Your task to perform on an android device: toggle location history Image 0: 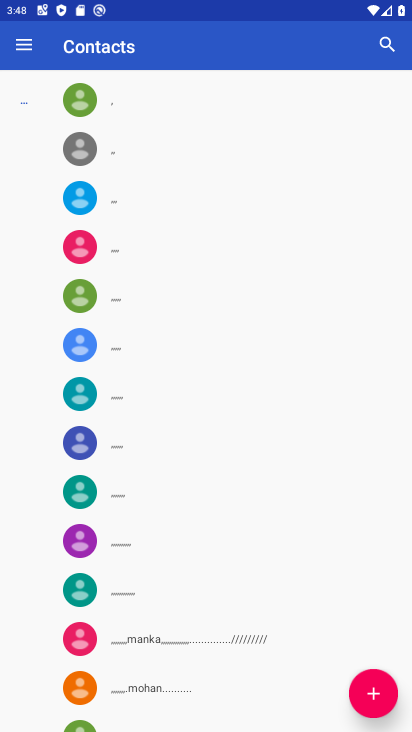
Step 0: press back button
Your task to perform on an android device: toggle location history Image 1: 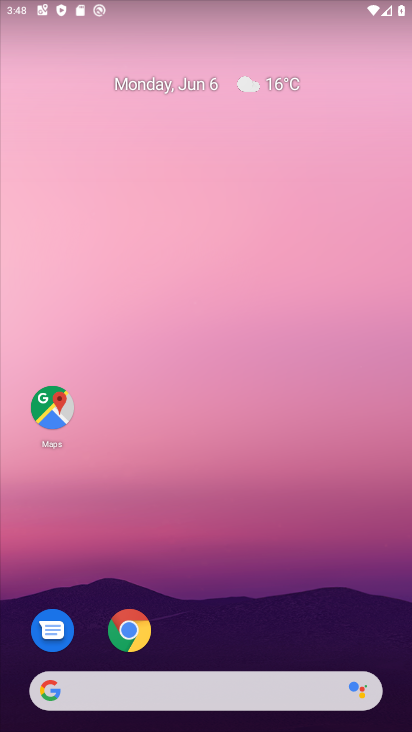
Step 1: drag from (198, 602) to (257, 144)
Your task to perform on an android device: toggle location history Image 2: 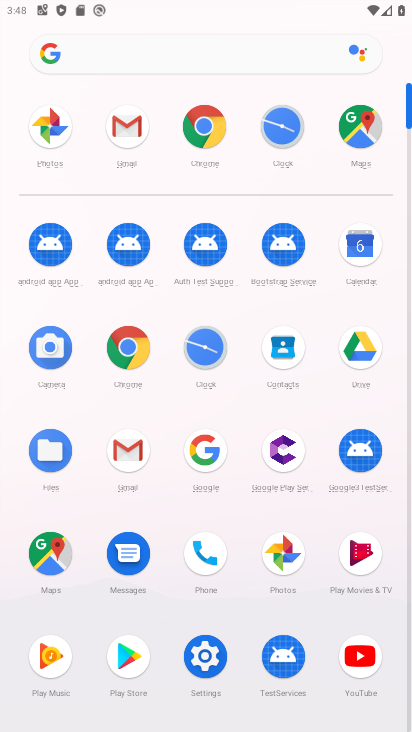
Step 2: click (211, 659)
Your task to perform on an android device: toggle location history Image 3: 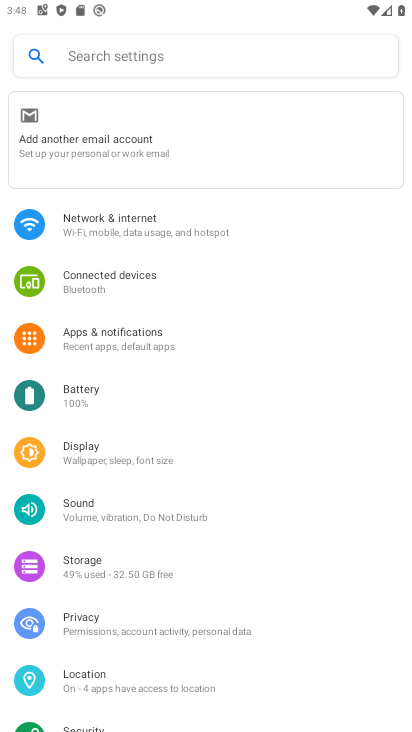
Step 3: click (124, 681)
Your task to perform on an android device: toggle location history Image 4: 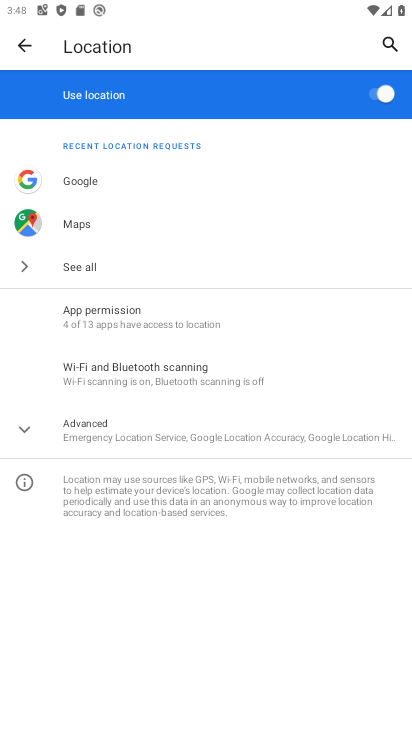
Step 4: click (168, 430)
Your task to perform on an android device: toggle location history Image 5: 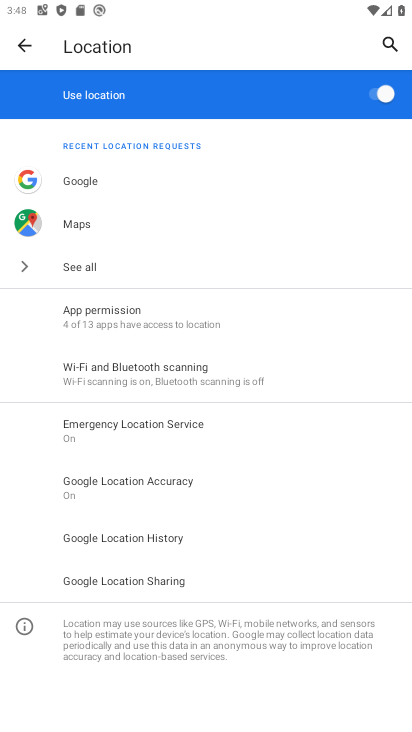
Step 5: click (129, 533)
Your task to perform on an android device: toggle location history Image 6: 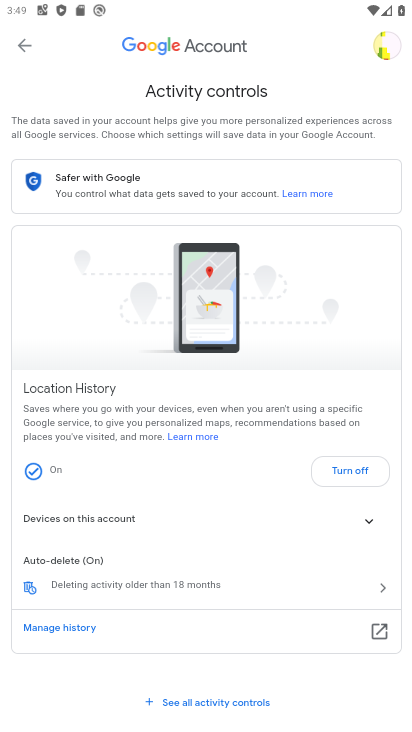
Step 6: click (364, 459)
Your task to perform on an android device: toggle location history Image 7: 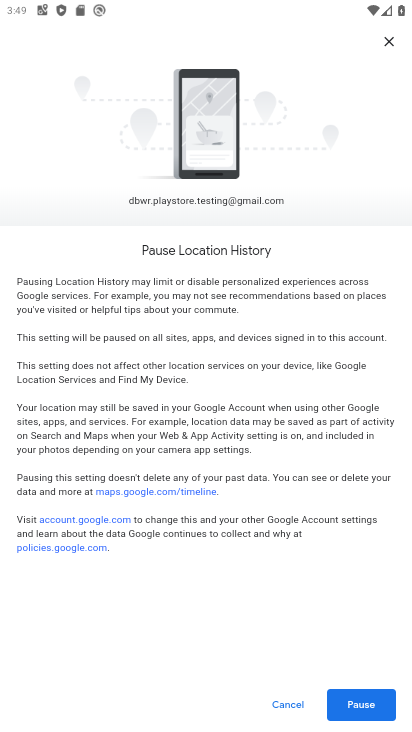
Step 7: drag from (272, 592) to (335, 127)
Your task to perform on an android device: toggle location history Image 8: 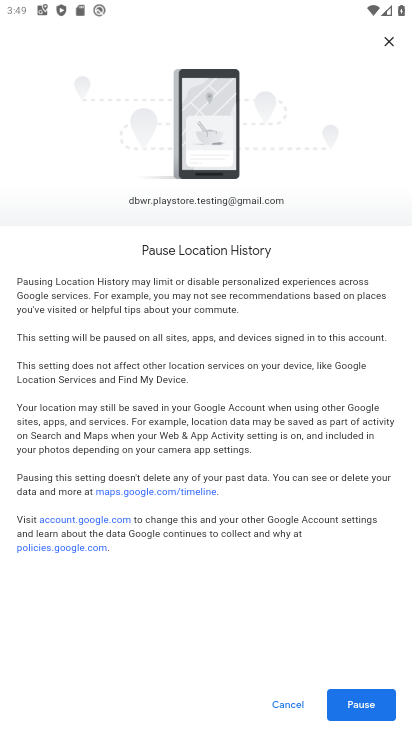
Step 8: click (364, 709)
Your task to perform on an android device: toggle location history Image 9: 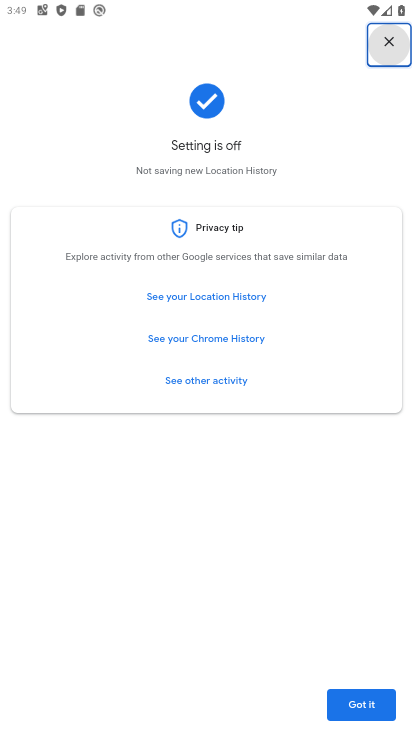
Step 9: task complete